Your task to perform on an android device: turn on the 24-hour format for clock Image 0: 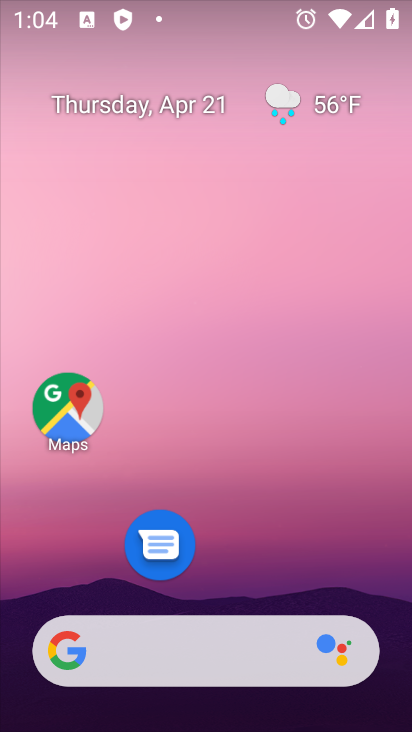
Step 0: drag from (269, 577) to (291, 10)
Your task to perform on an android device: turn on the 24-hour format for clock Image 1: 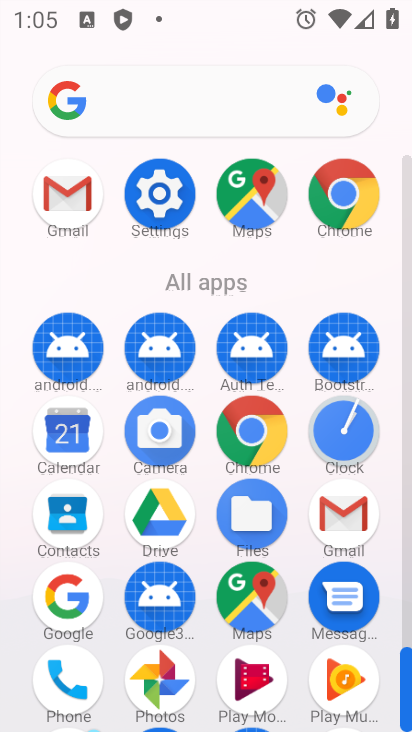
Step 1: drag from (225, 500) to (228, 288)
Your task to perform on an android device: turn on the 24-hour format for clock Image 2: 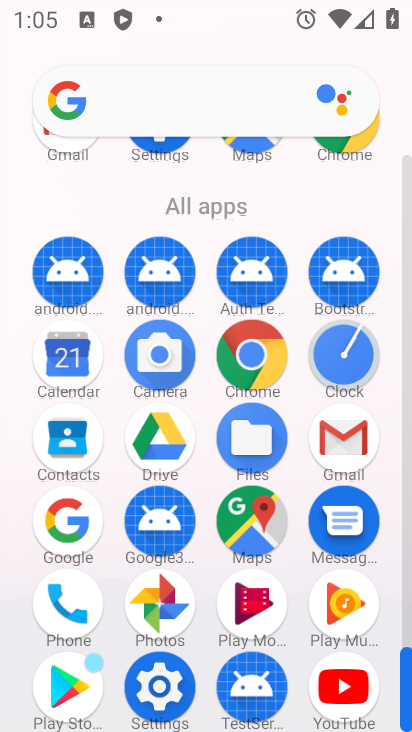
Step 2: click (354, 356)
Your task to perform on an android device: turn on the 24-hour format for clock Image 3: 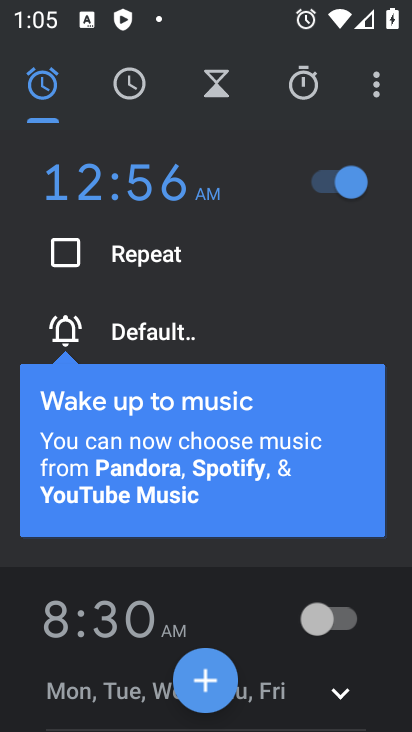
Step 3: click (385, 79)
Your task to perform on an android device: turn on the 24-hour format for clock Image 4: 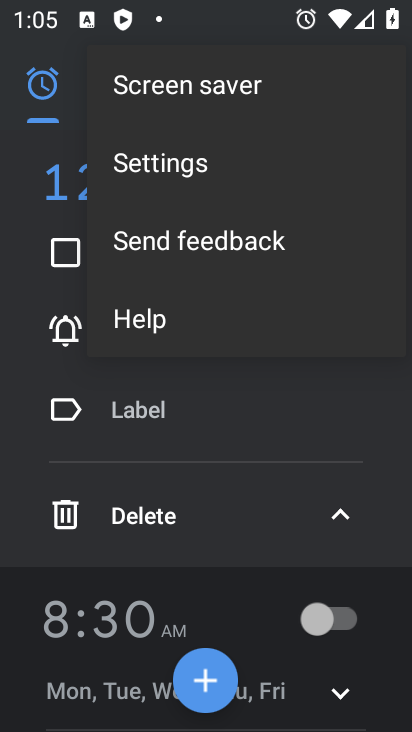
Step 4: click (241, 159)
Your task to perform on an android device: turn on the 24-hour format for clock Image 5: 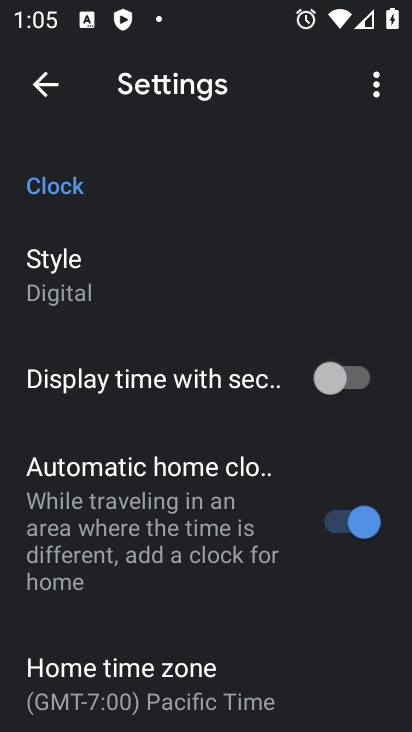
Step 5: click (374, 95)
Your task to perform on an android device: turn on the 24-hour format for clock Image 6: 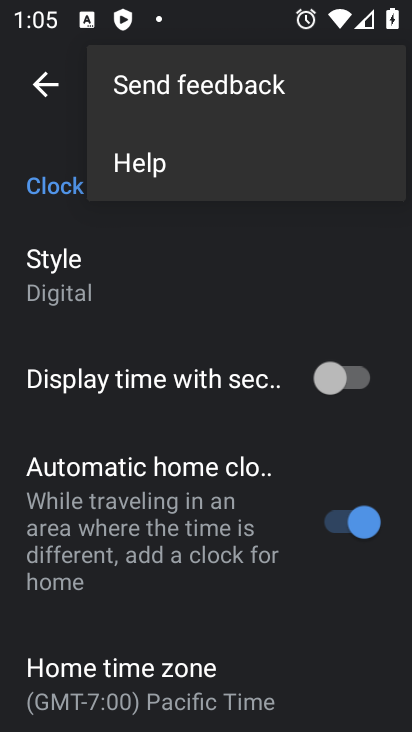
Step 6: drag from (258, 581) to (239, 221)
Your task to perform on an android device: turn on the 24-hour format for clock Image 7: 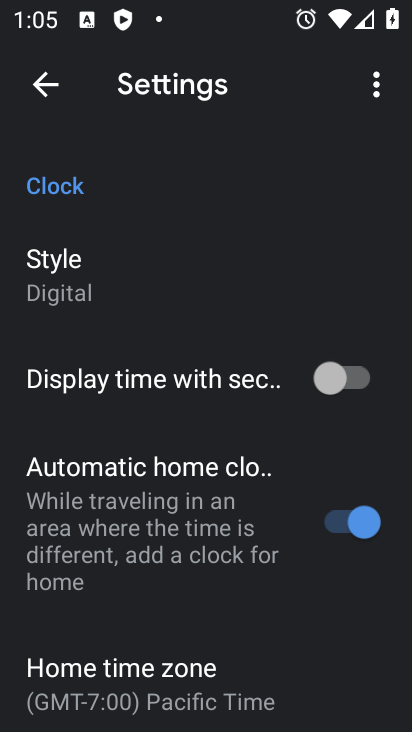
Step 7: drag from (230, 549) to (218, 226)
Your task to perform on an android device: turn on the 24-hour format for clock Image 8: 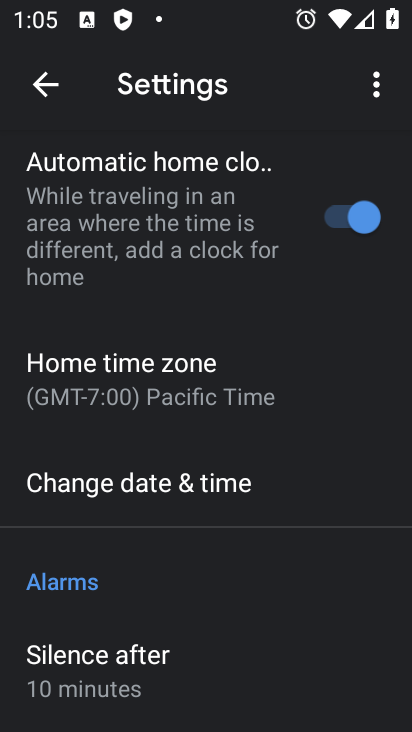
Step 8: click (246, 479)
Your task to perform on an android device: turn on the 24-hour format for clock Image 9: 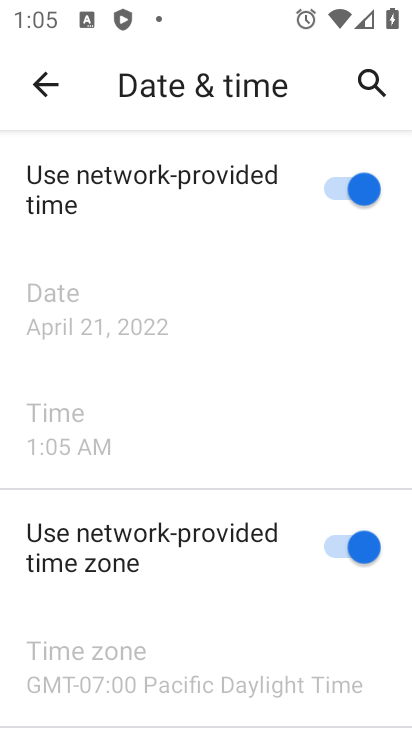
Step 9: task complete